Your task to perform on an android device: show emergency info Image 0: 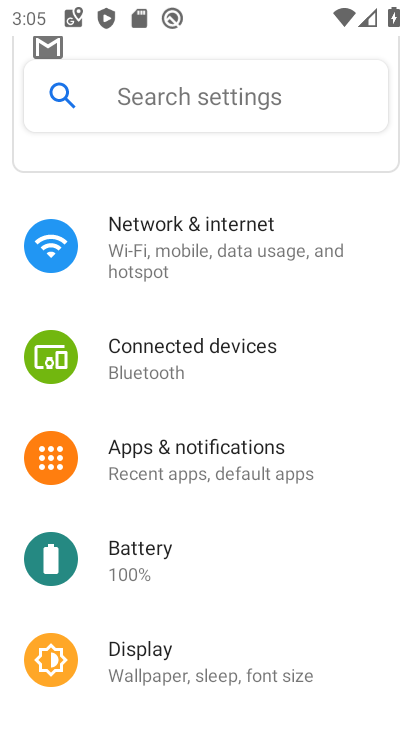
Step 0: drag from (251, 638) to (258, 316)
Your task to perform on an android device: show emergency info Image 1: 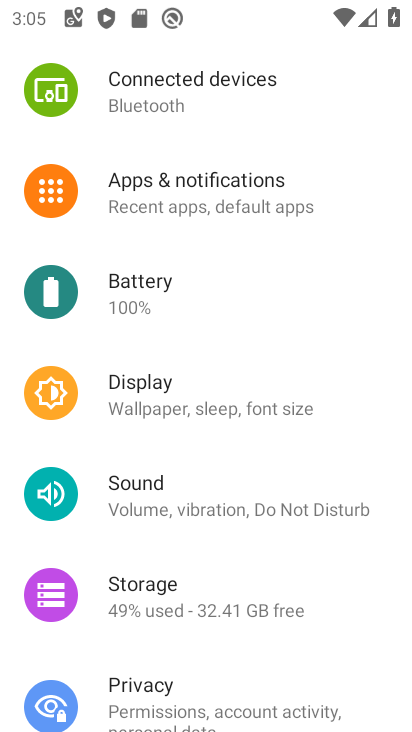
Step 1: drag from (263, 639) to (274, 318)
Your task to perform on an android device: show emergency info Image 2: 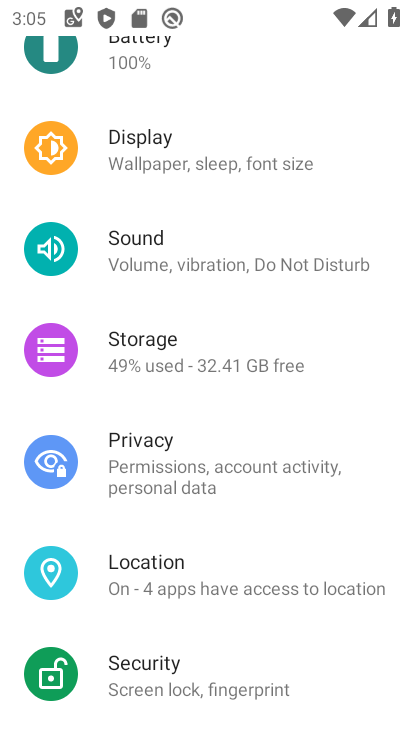
Step 2: drag from (263, 614) to (282, 348)
Your task to perform on an android device: show emergency info Image 3: 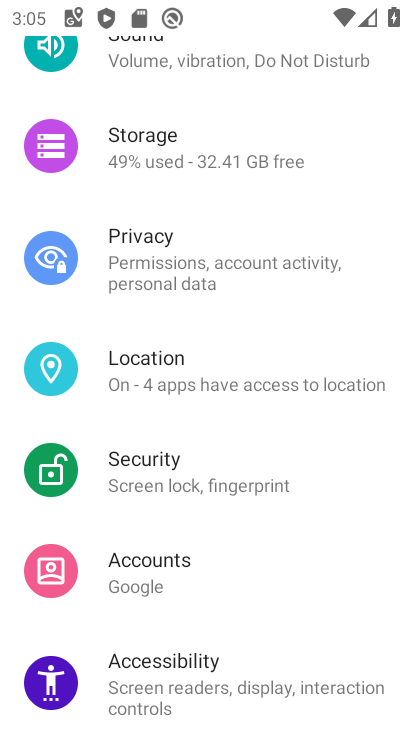
Step 3: drag from (255, 553) to (284, 328)
Your task to perform on an android device: show emergency info Image 4: 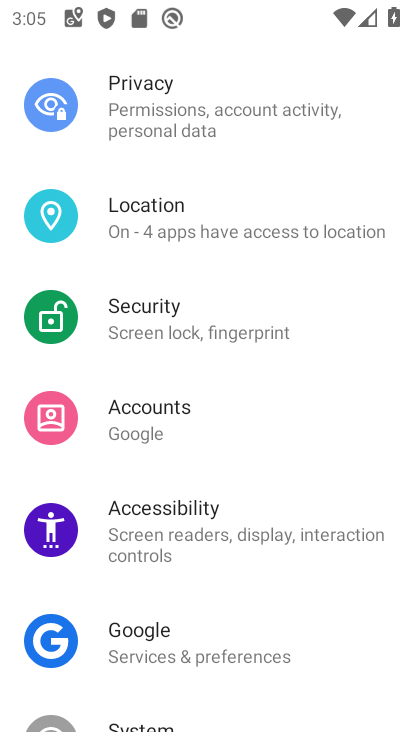
Step 4: drag from (245, 634) to (282, 320)
Your task to perform on an android device: show emergency info Image 5: 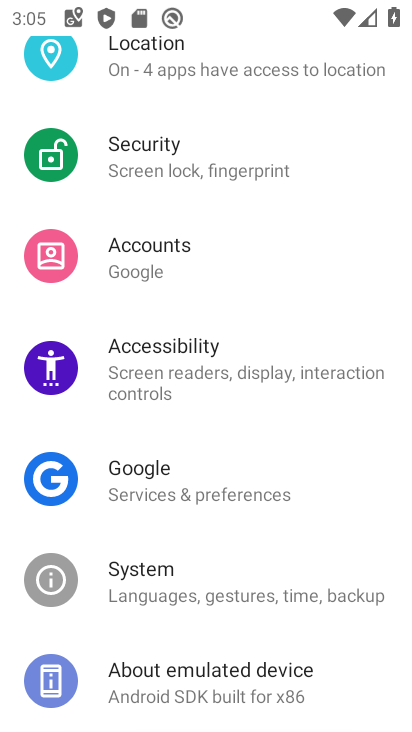
Step 5: drag from (228, 637) to (278, 368)
Your task to perform on an android device: show emergency info Image 6: 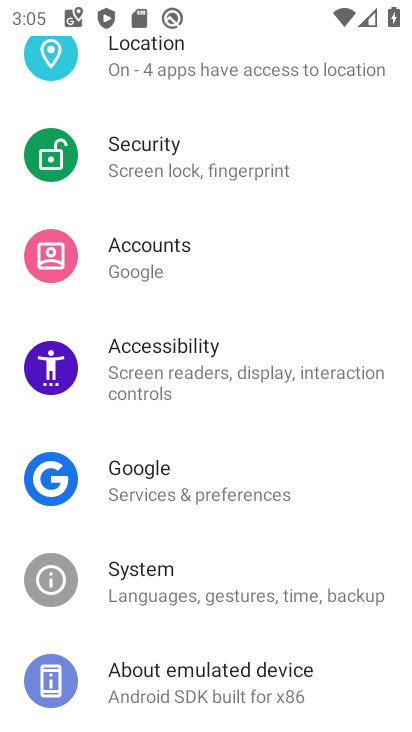
Step 6: click (199, 680)
Your task to perform on an android device: show emergency info Image 7: 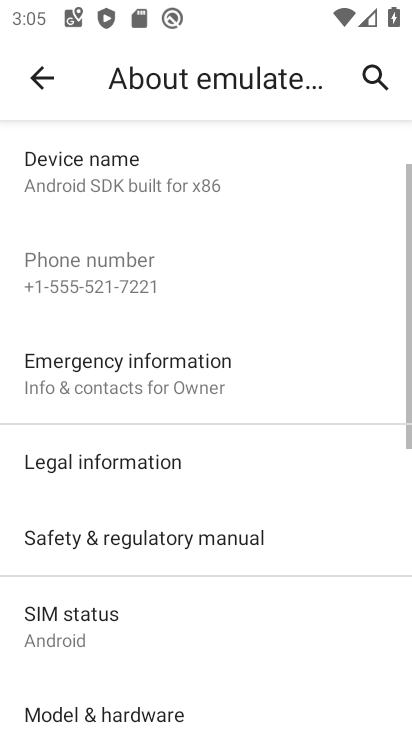
Step 7: click (147, 399)
Your task to perform on an android device: show emergency info Image 8: 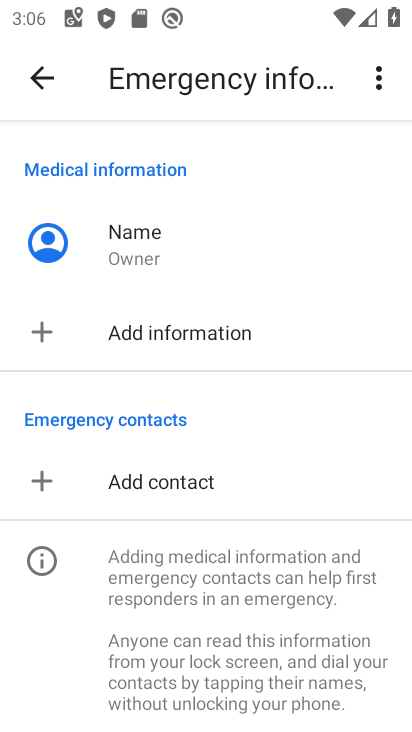
Step 8: task complete